Your task to perform on an android device: turn pop-ups on in chrome Image 0: 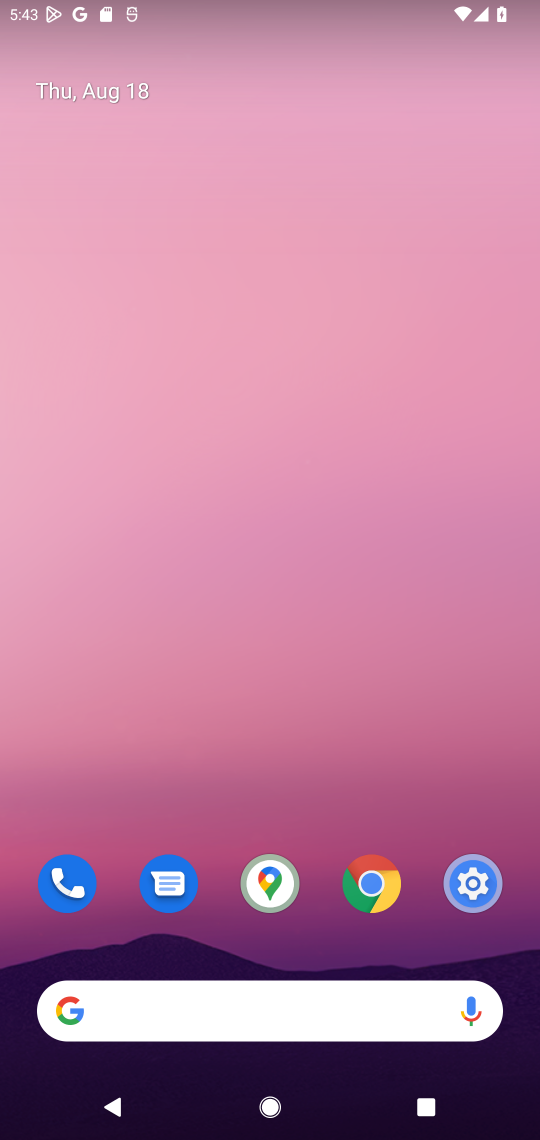
Step 0: drag from (306, 925) to (251, 179)
Your task to perform on an android device: turn pop-ups on in chrome Image 1: 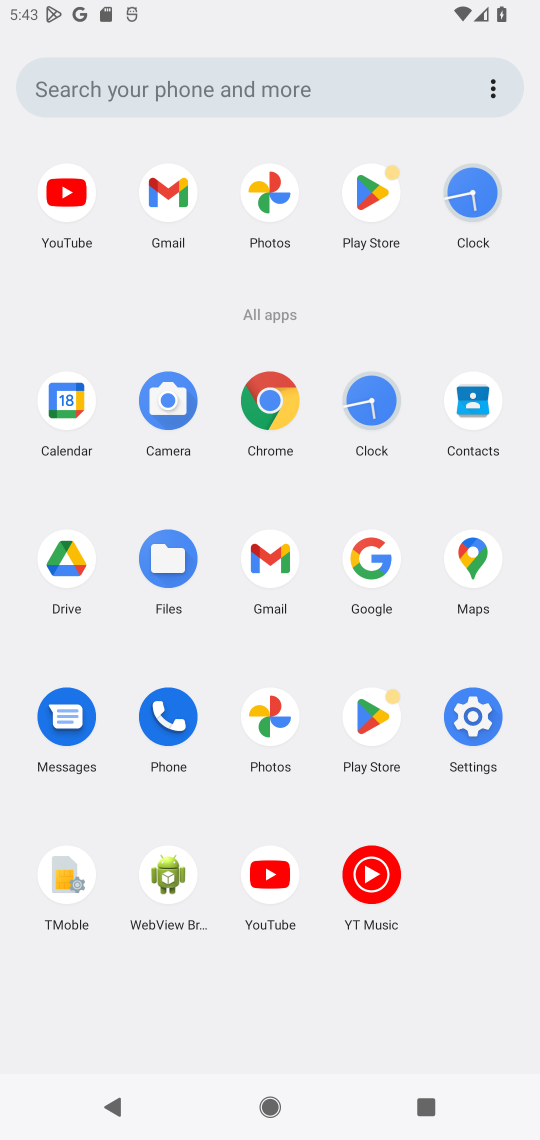
Step 1: click (261, 413)
Your task to perform on an android device: turn pop-ups on in chrome Image 2: 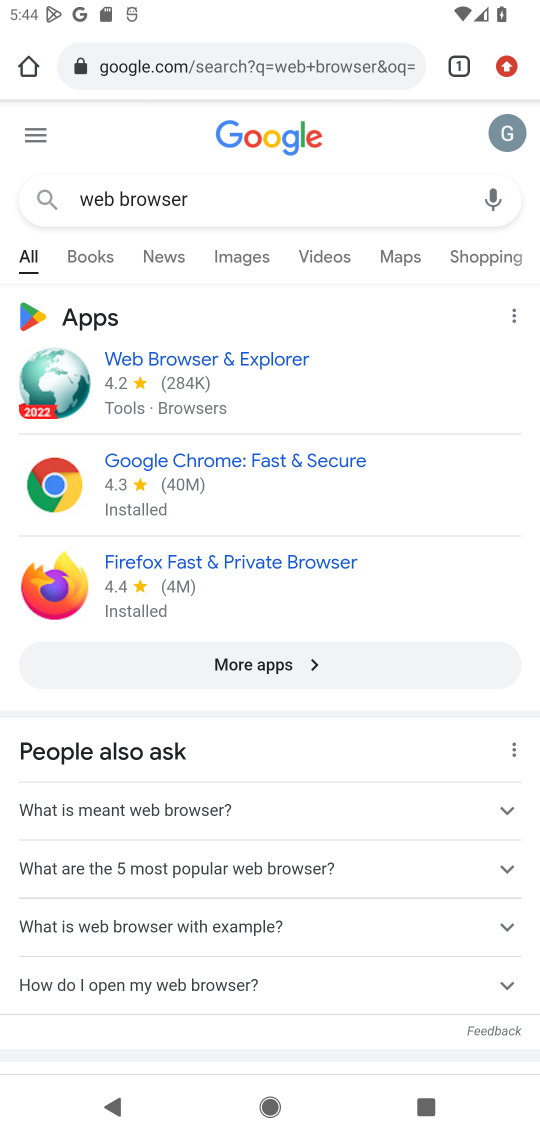
Step 2: drag from (500, 65) to (324, 852)
Your task to perform on an android device: turn pop-ups on in chrome Image 3: 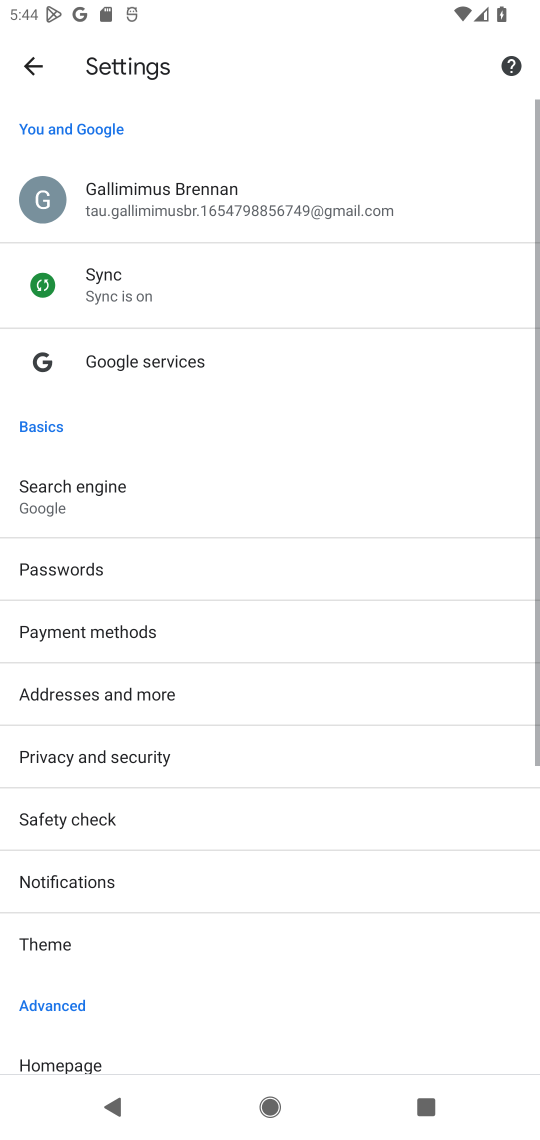
Step 3: drag from (262, 889) to (258, 228)
Your task to perform on an android device: turn pop-ups on in chrome Image 4: 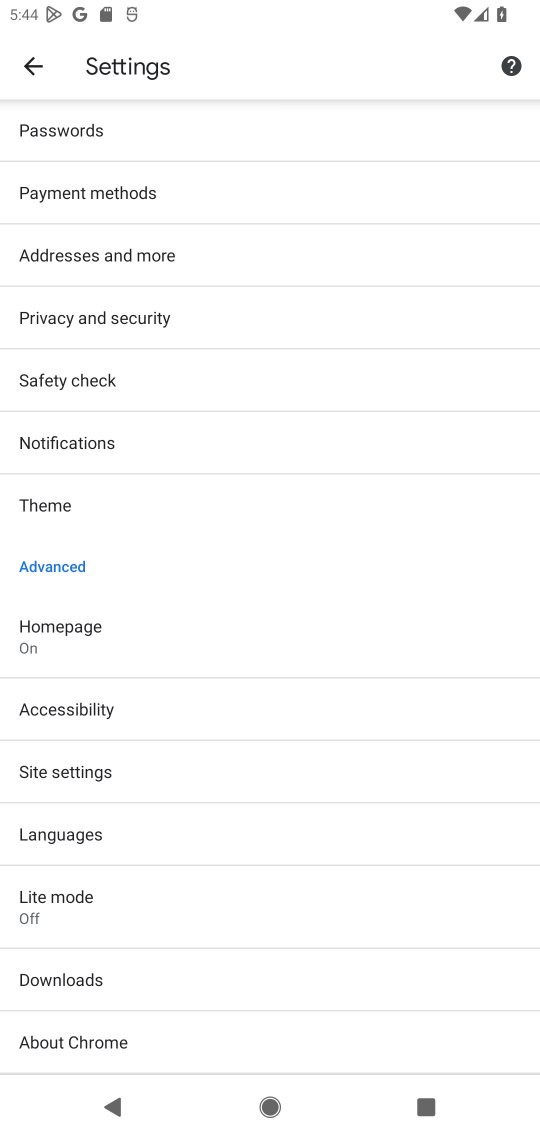
Step 4: click (73, 757)
Your task to perform on an android device: turn pop-ups on in chrome Image 5: 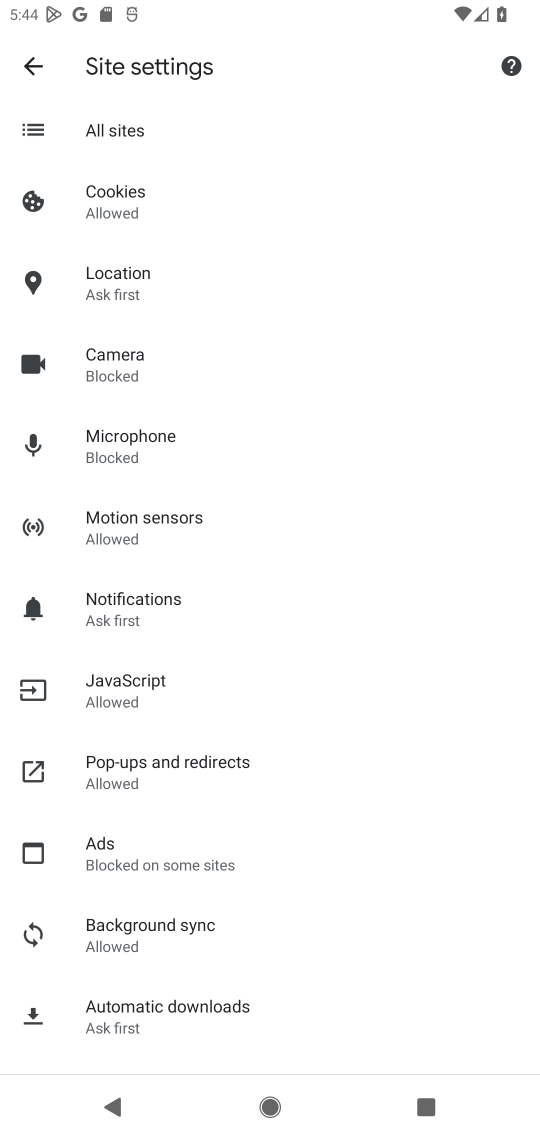
Step 5: click (175, 765)
Your task to perform on an android device: turn pop-ups on in chrome Image 6: 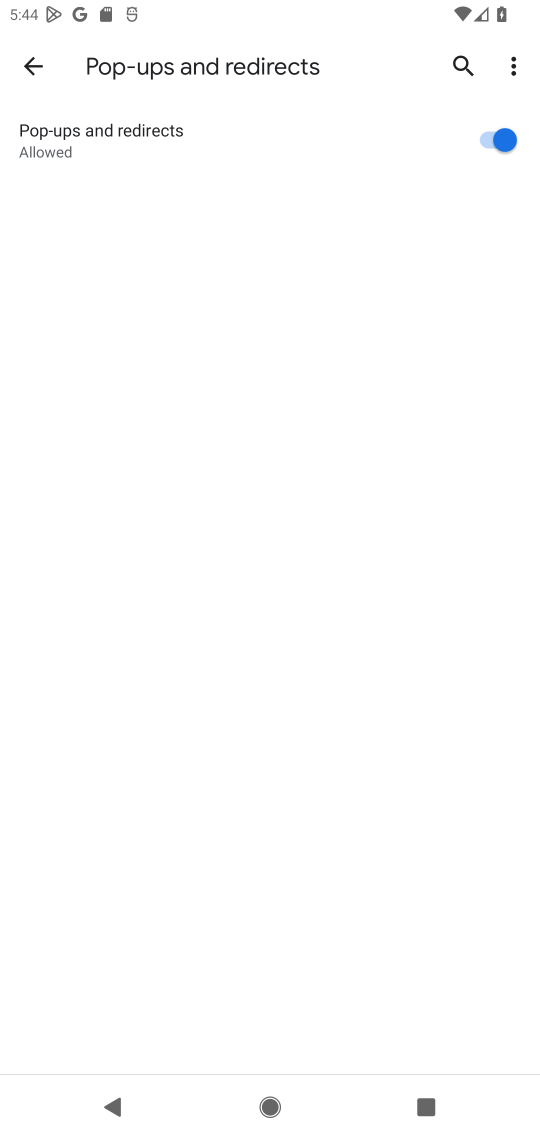
Step 6: task complete